Your task to perform on an android device: set the stopwatch Image 0: 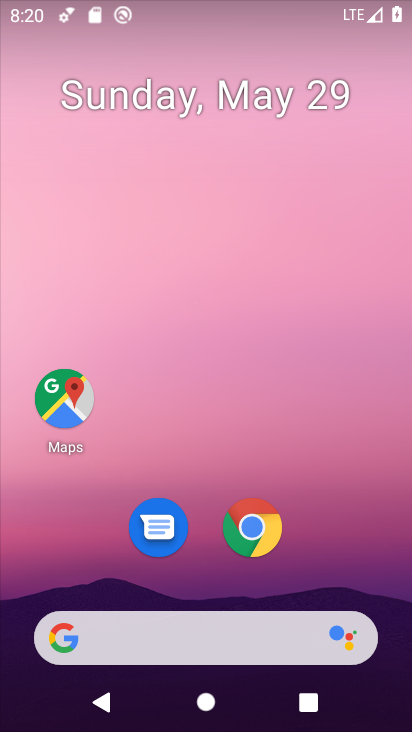
Step 0: drag from (204, 499) to (211, 96)
Your task to perform on an android device: set the stopwatch Image 1: 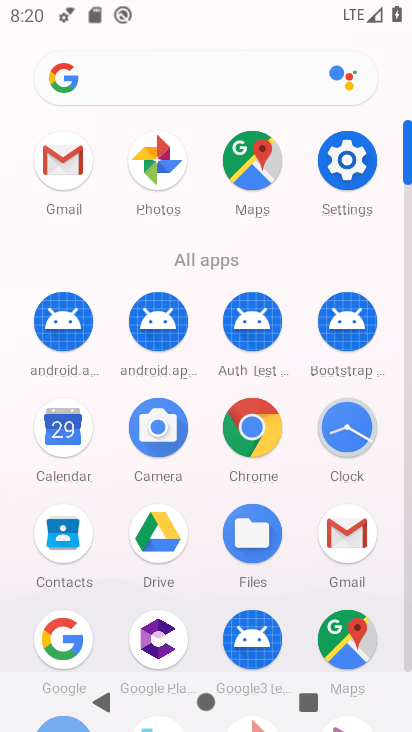
Step 1: click (346, 423)
Your task to perform on an android device: set the stopwatch Image 2: 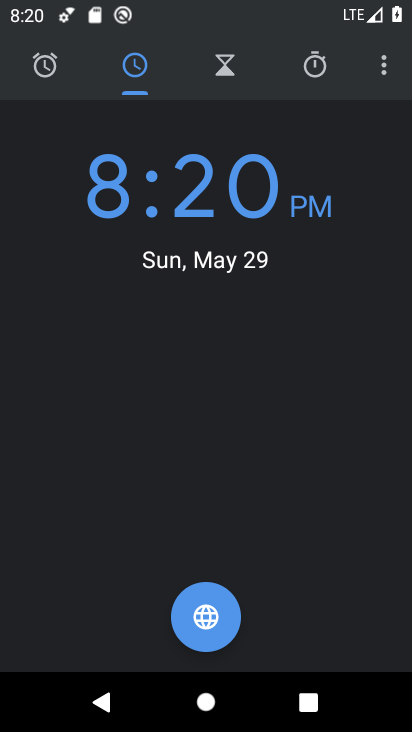
Step 2: click (317, 72)
Your task to perform on an android device: set the stopwatch Image 3: 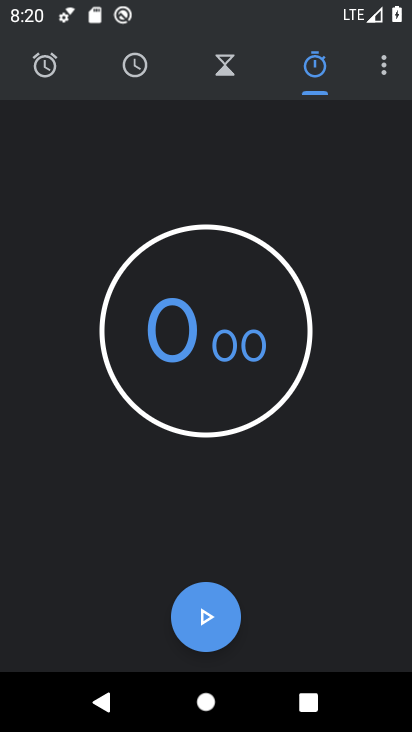
Step 3: click (204, 614)
Your task to perform on an android device: set the stopwatch Image 4: 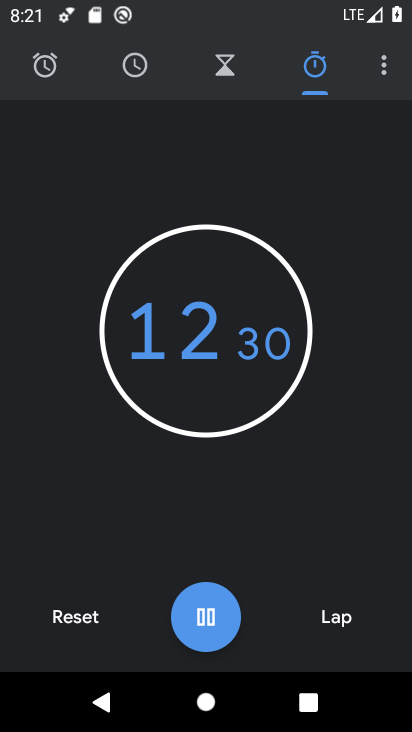
Step 4: task complete